Your task to perform on an android device: Open Yahoo.com Image 0: 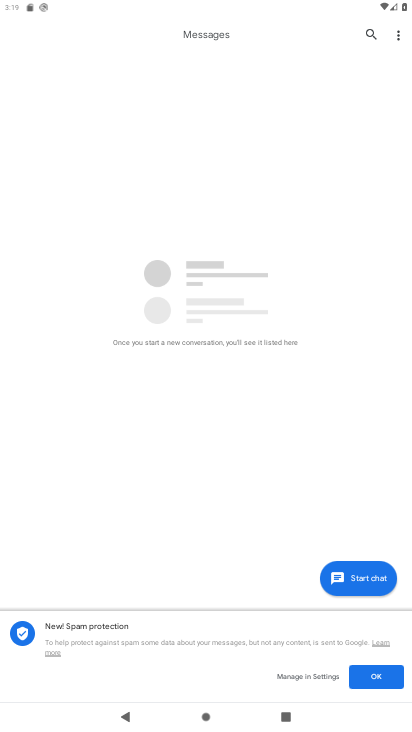
Step 0: press home button
Your task to perform on an android device: Open Yahoo.com Image 1: 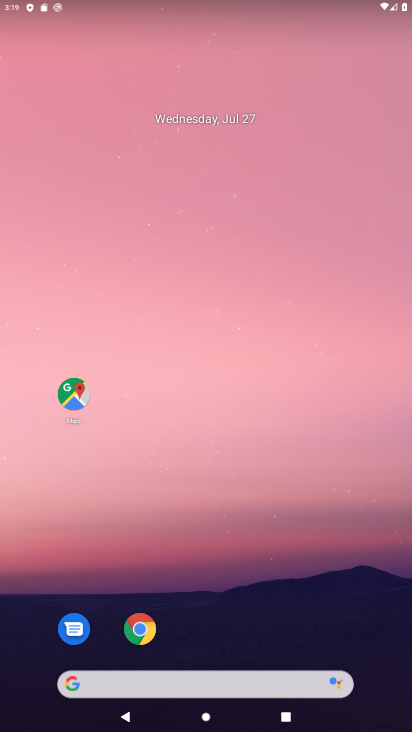
Step 1: drag from (296, 619) to (267, 62)
Your task to perform on an android device: Open Yahoo.com Image 2: 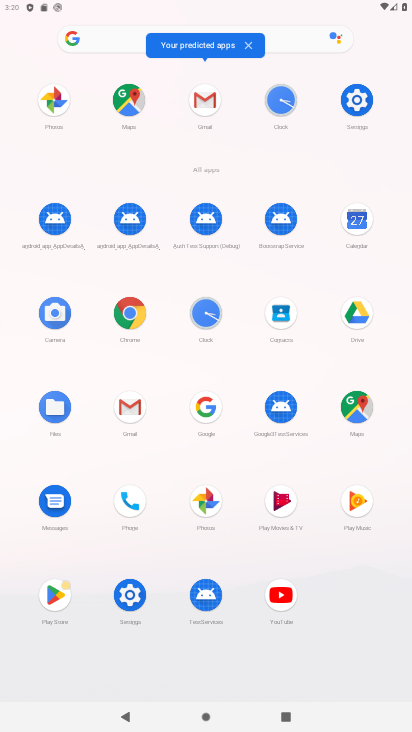
Step 2: click (129, 318)
Your task to perform on an android device: Open Yahoo.com Image 3: 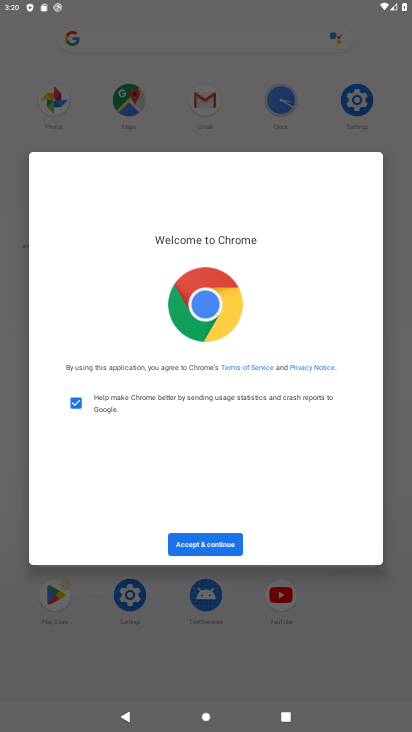
Step 3: click (189, 539)
Your task to perform on an android device: Open Yahoo.com Image 4: 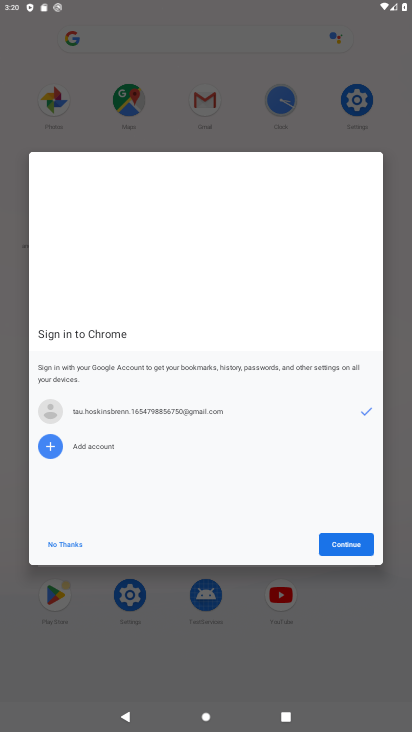
Step 4: click (364, 540)
Your task to perform on an android device: Open Yahoo.com Image 5: 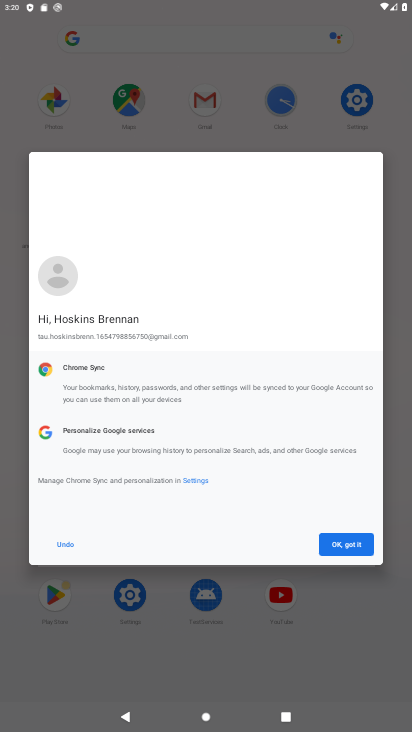
Step 5: click (364, 540)
Your task to perform on an android device: Open Yahoo.com Image 6: 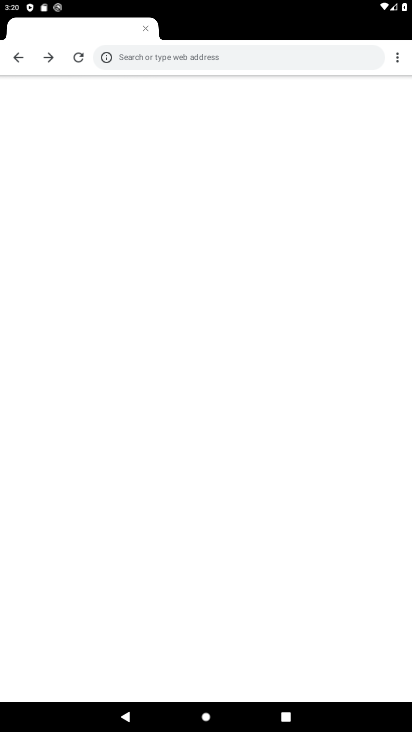
Step 6: click (234, 63)
Your task to perform on an android device: Open Yahoo.com Image 7: 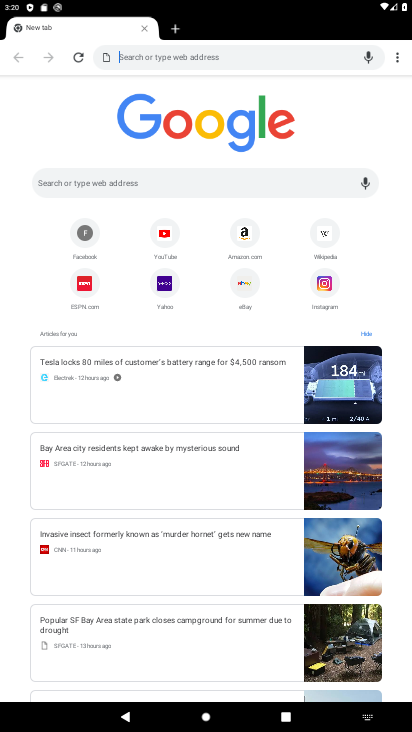
Step 7: click (187, 49)
Your task to perform on an android device: Open Yahoo.com Image 8: 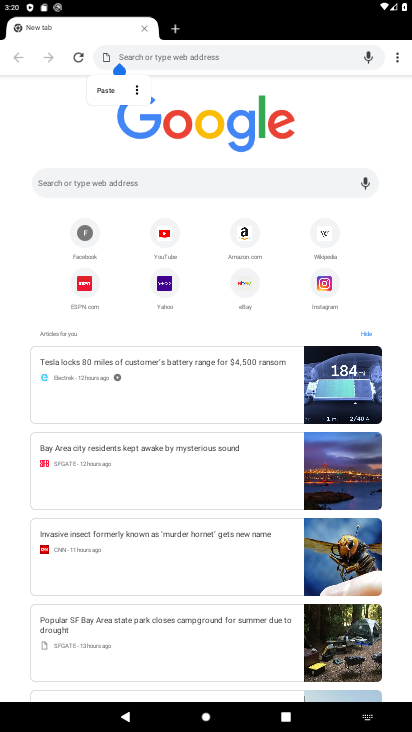
Step 8: type "yahoo.com"
Your task to perform on an android device: Open Yahoo.com Image 9: 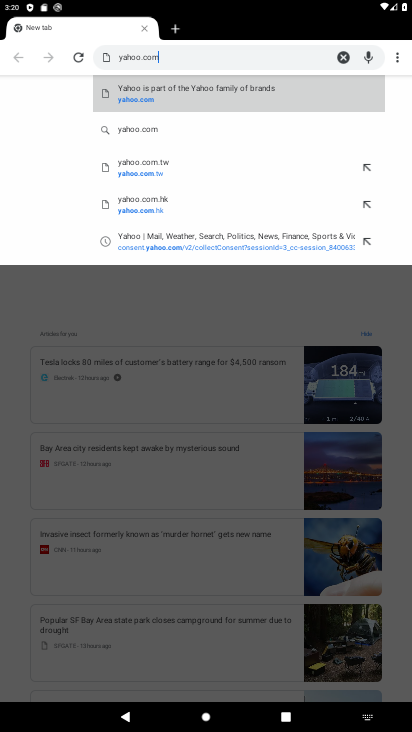
Step 9: click (195, 95)
Your task to perform on an android device: Open Yahoo.com Image 10: 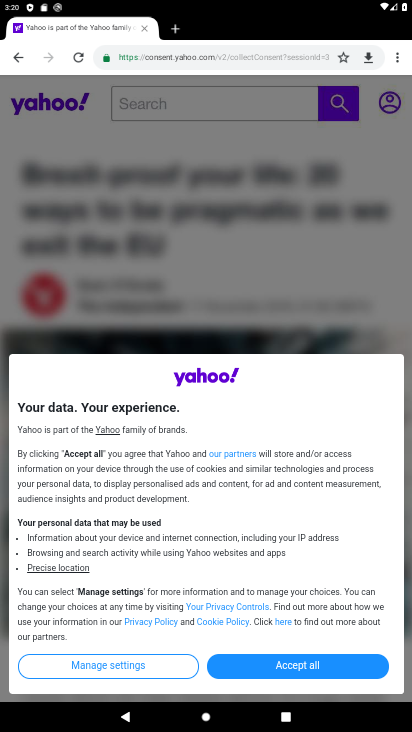
Step 10: task complete